Your task to perform on an android device: What's the weather? Image 0: 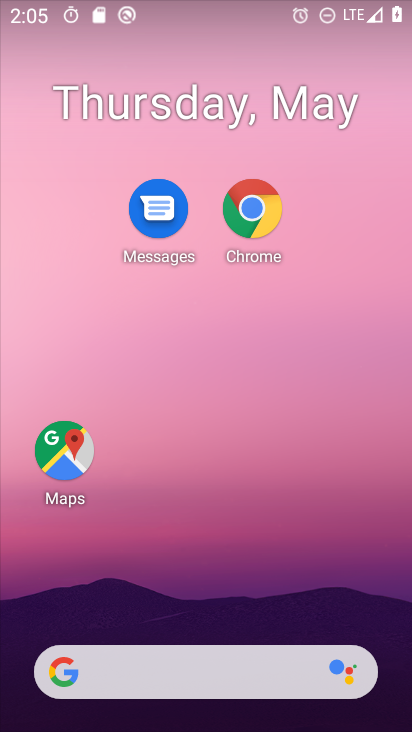
Step 0: click (152, 680)
Your task to perform on an android device: What's the weather? Image 1: 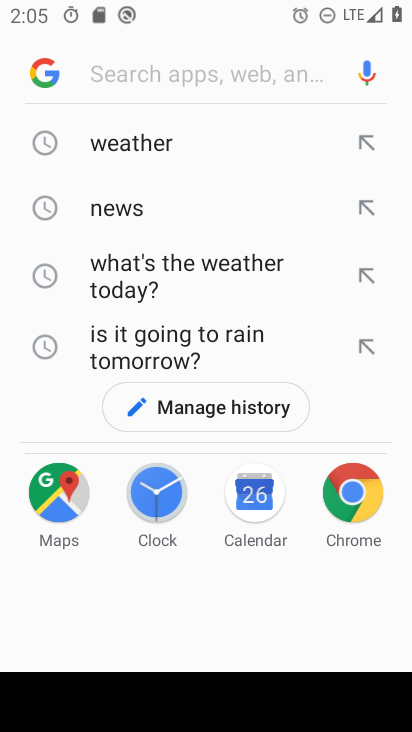
Step 1: click (119, 146)
Your task to perform on an android device: What's the weather? Image 2: 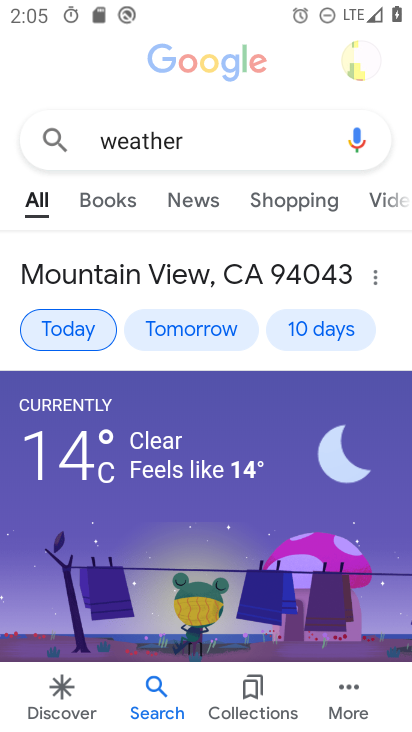
Step 2: click (135, 148)
Your task to perform on an android device: What's the weather? Image 3: 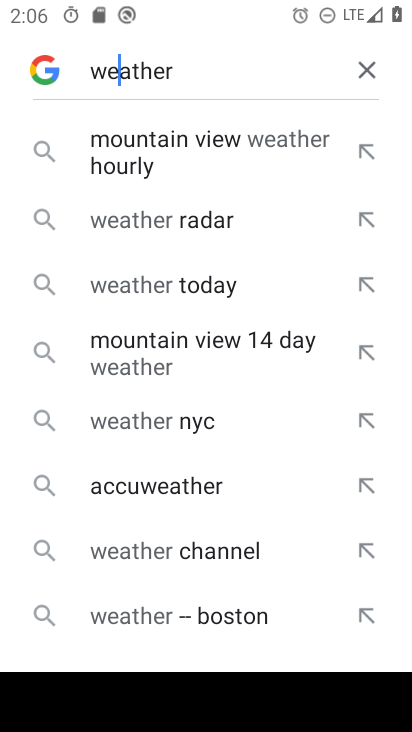
Step 3: click (218, 69)
Your task to perform on an android device: What's the weather? Image 4: 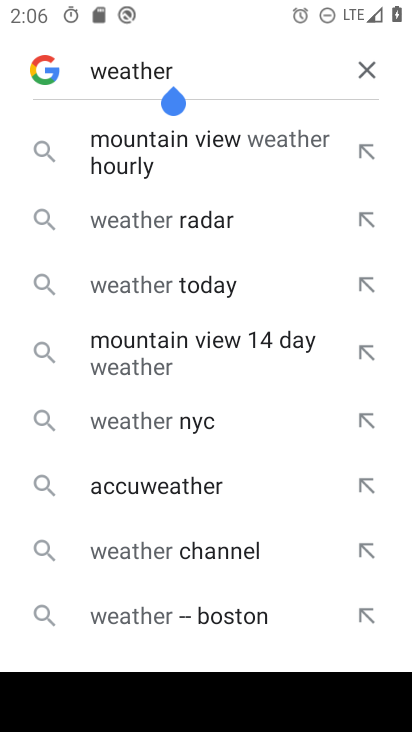
Step 4: click (182, 76)
Your task to perform on an android device: What's the weather? Image 5: 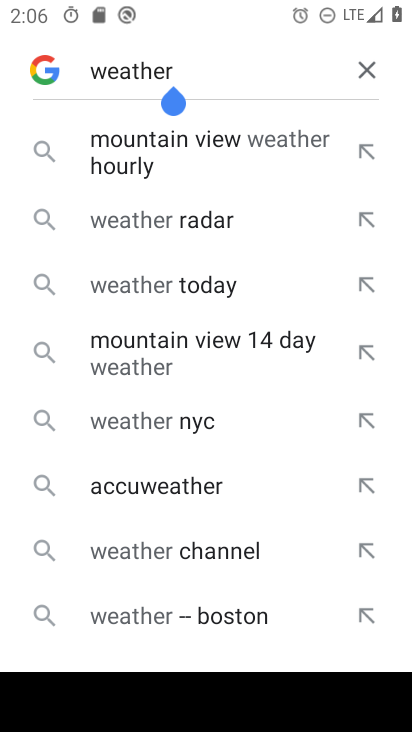
Step 5: click (173, 73)
Your task to perform on an android device: What's the weather? Image 6: 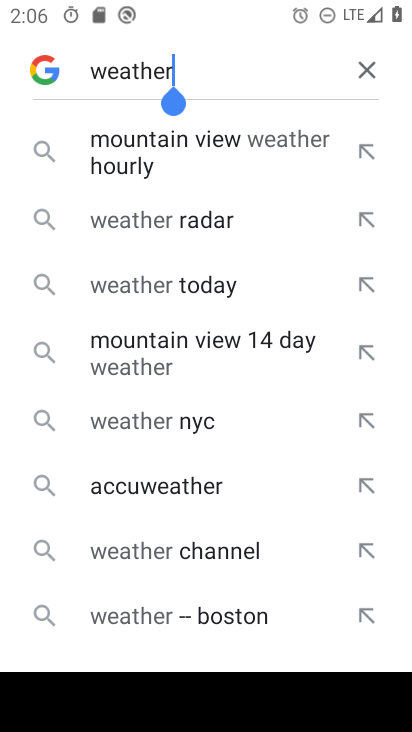
Step 6: click (369, 65)
Your task to perform on an android device: What's the weather? Image 7: 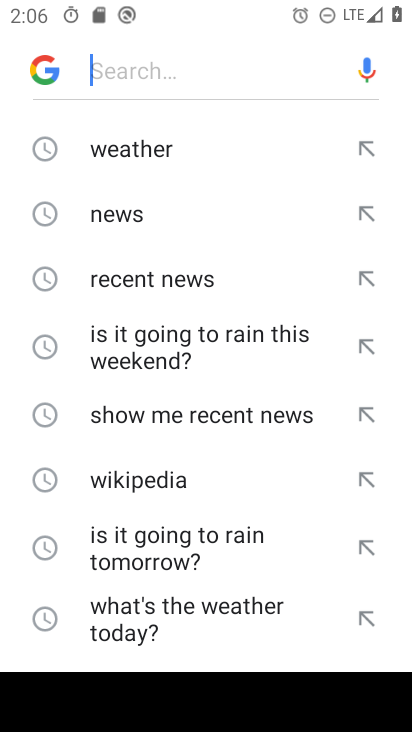
Step 7: click (365, 72)
Your task to perform on an android device: What's the weather? Image 8: 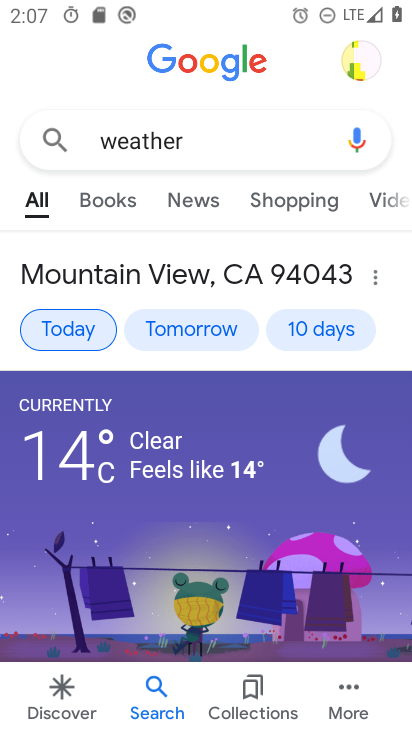
Step 8: task complete